Your task to perform on an android device: toggle airplane mode Image 0: 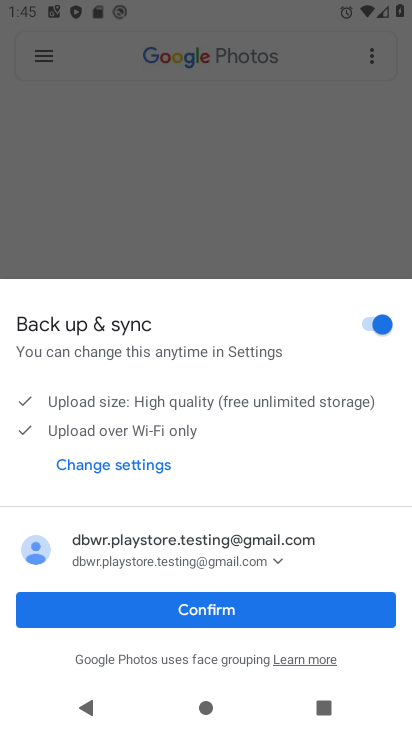
Step 0: press home button
Your task to perform on an android device: toggle airplane mode Image 1: 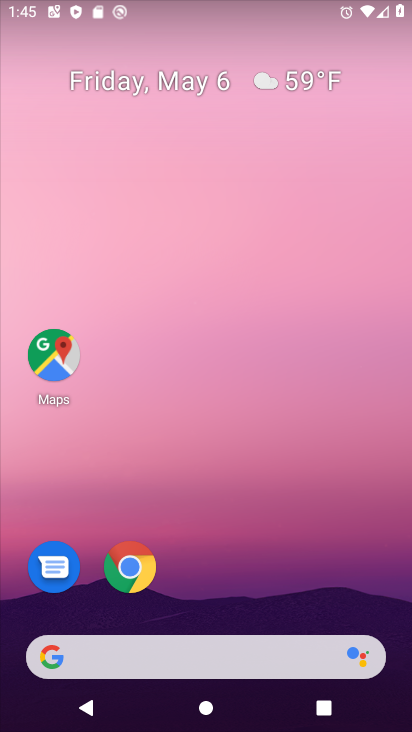
Step 1: drag from (358, 8) to (307, 559)
Your task to perform on an android device: toggle airplane mode Image 2: 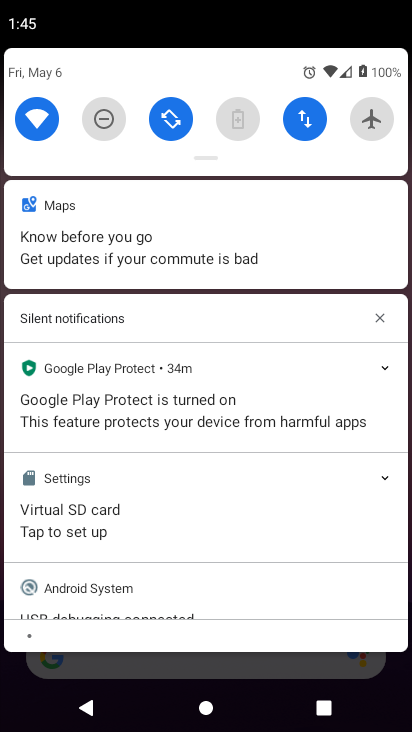
Step 2: click (366, 121)
Your task to perform on an android device: toggle airplane mode Image 3: 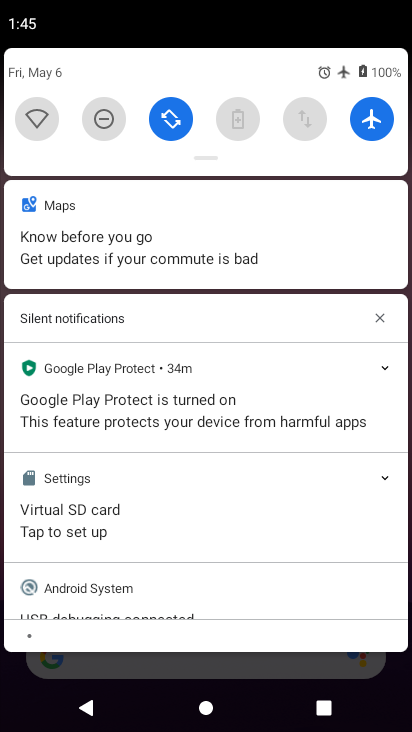
Step 3: task complete